Your task to perform on an android device: Open the stopwatch Image 0: 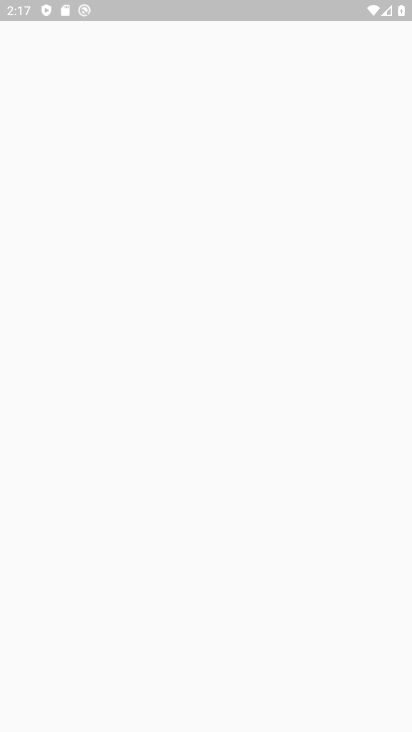
Step 0: press home button
Your task to perform on an android device: Open the stopwatch Image 1: 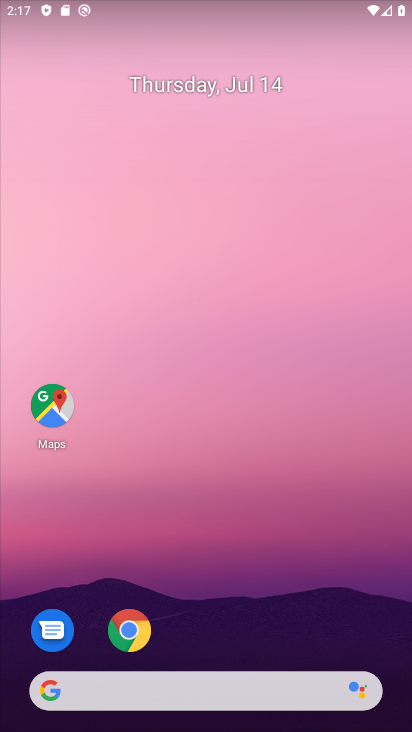
Step 1: drag from (251, 600) to (220, 32)
Your task to perform on an android device: Open the stopwatch Image 2: 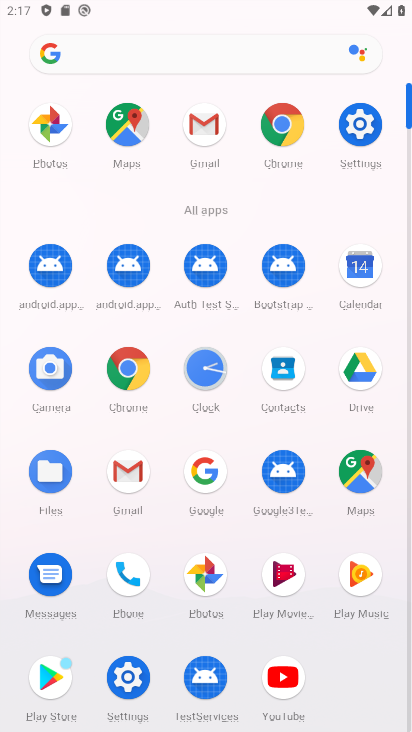
Step 2: click (203, 369)
Your task to perform on an android device: Open the stopwatch Image 3: 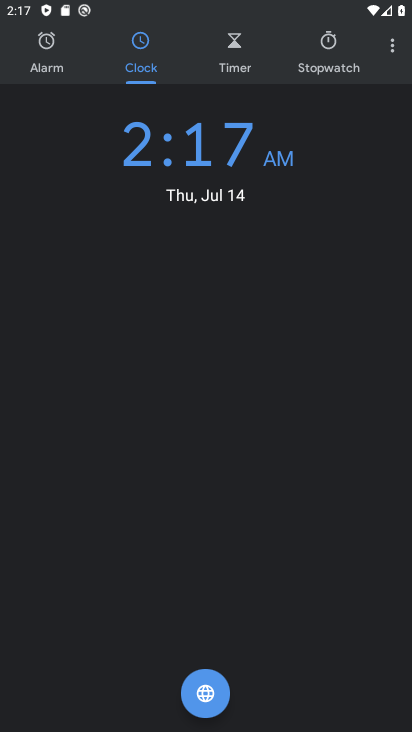
Step 3: click (335, 59)
Your task to perform on an android device: Open the stopwatch Image 4: 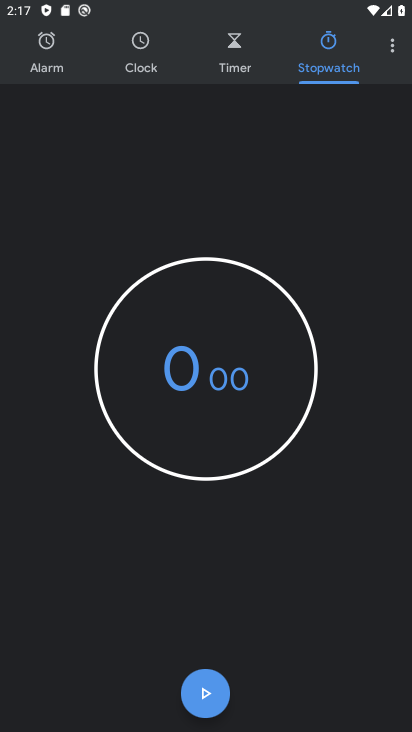
Step 4: click (196, 688)
Your task to perform on an android device: Open the stopwatch Image 5: 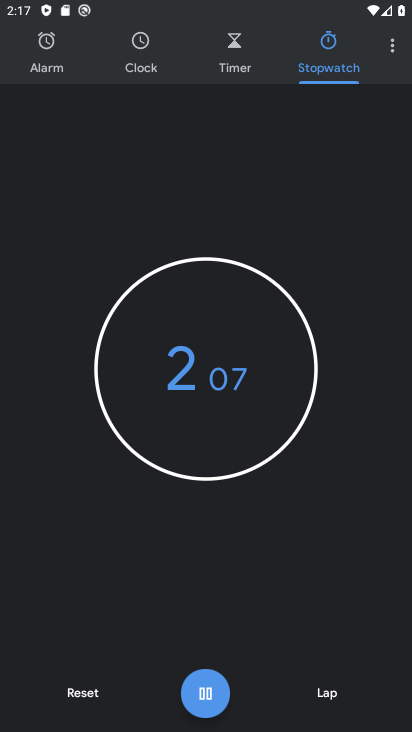
Step 5: task complete